Your task to perform on an android device: toggle airplane mode Image 0: 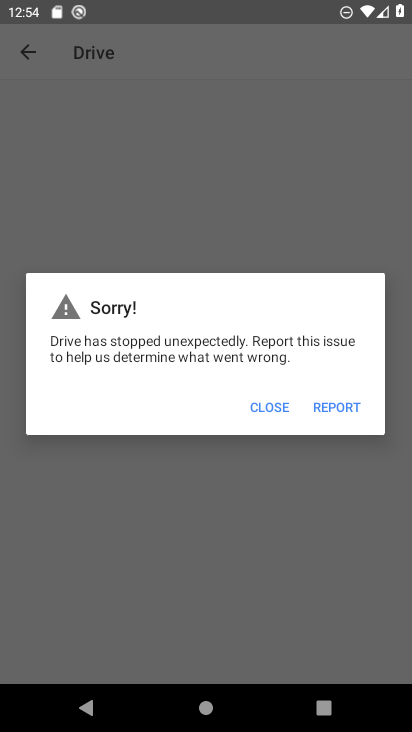
Step 0: drag from (183, 19) to (94, 585)
Your task to perform on an android device: toggle airplane mode Image 1: 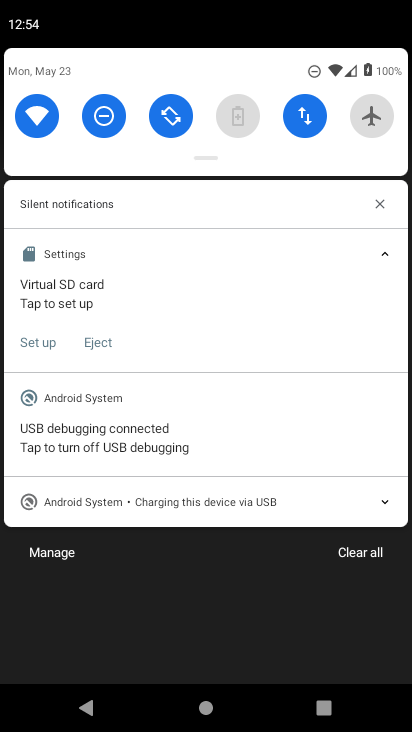
Step 1: click (383, 117)
Your task to perform on an android device: toggle airplane mode Image 2: 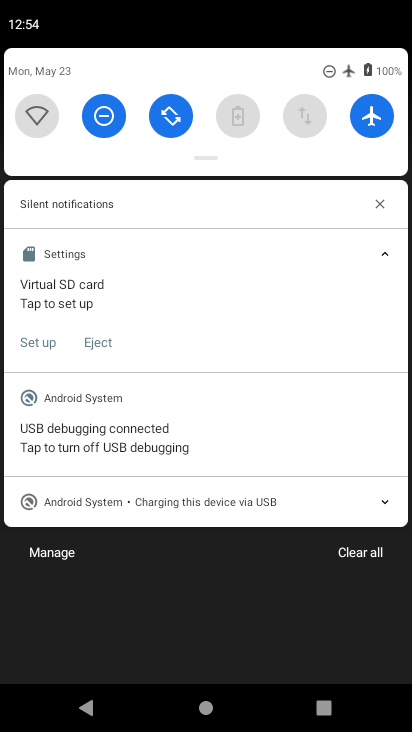
Step 2: click (383, 117)
Your task to perform on an android device: toggle airplane mode Image 3: 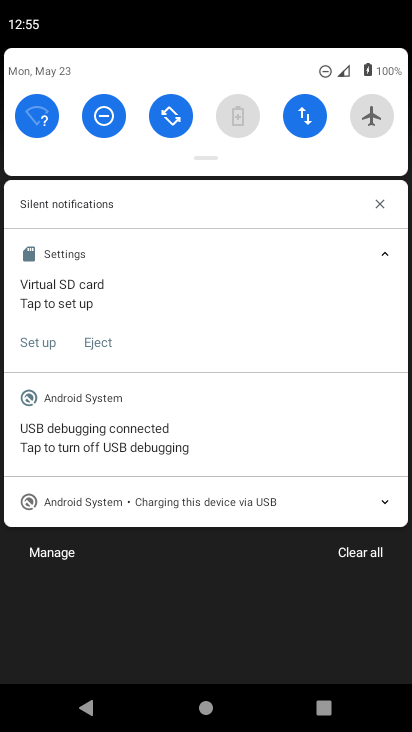
Step 3: click (383, 117)
Your task to perform on an android device: toggle airplane mode Image 4: 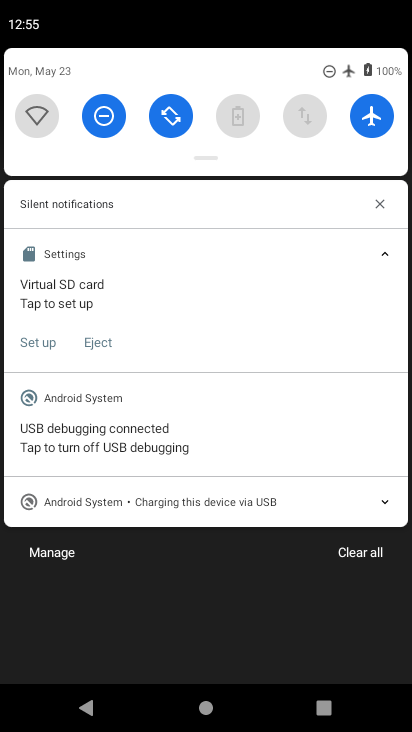
Step 4: click (383, 117)
Your task to perform on an android device: toggle airplane mode Image 5: 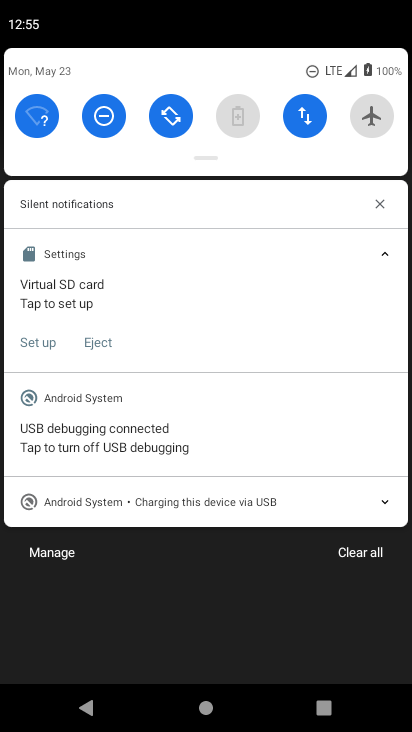
Step 5: task complete